Your task to perform on an android device: Open my contact list Image 0: 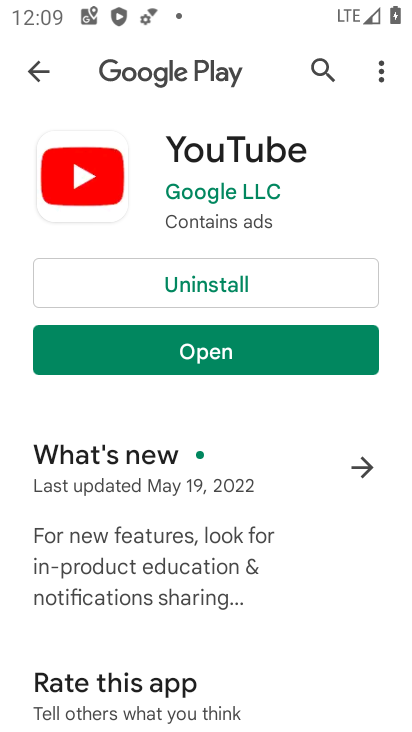
Step 0: press home button
Your task to perform on an android device: Open my contact list Image 1: 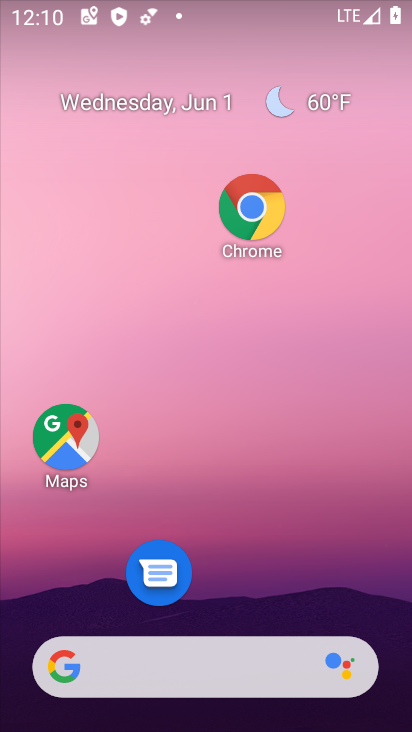
Step 1: drag from (211, 607) to (136, 203)
Your task to perform on an android device: Open my contact list Image 2: 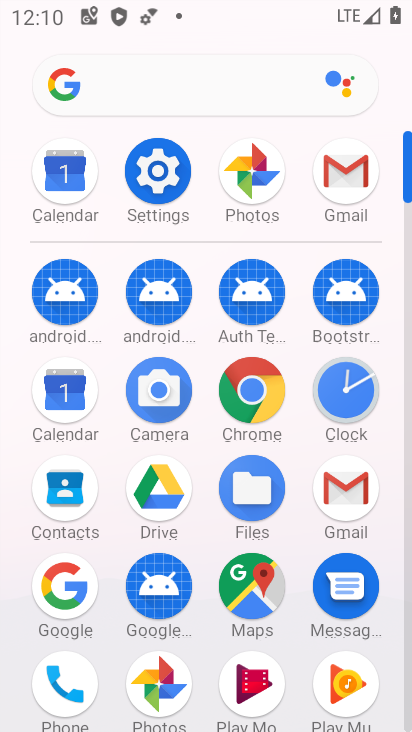
Step 2: click (74, 496)
Your task to perform on an android device: Open my contact list Image 3: 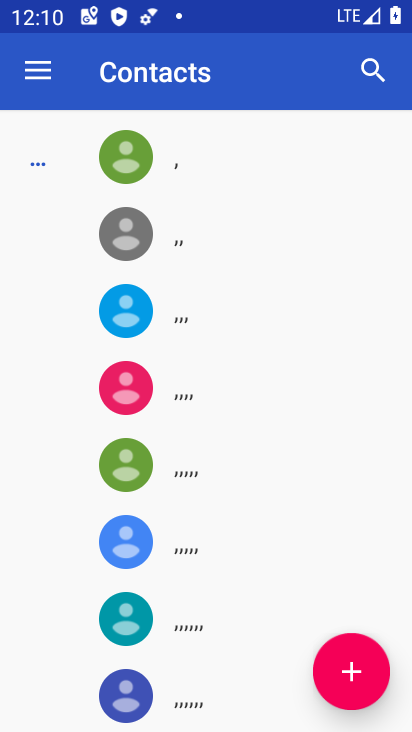
Step 3: task complete